Your task to perform on an android device: change text size in settings app Image 0: 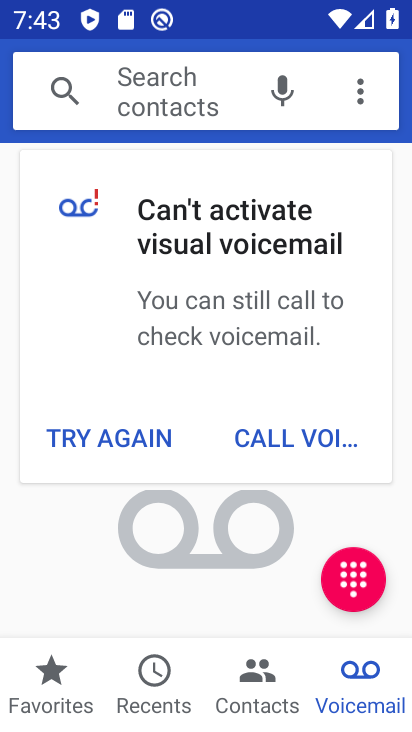
Step 0: press back button
Your task to perform on an android device: change text size in settings app Image 1: 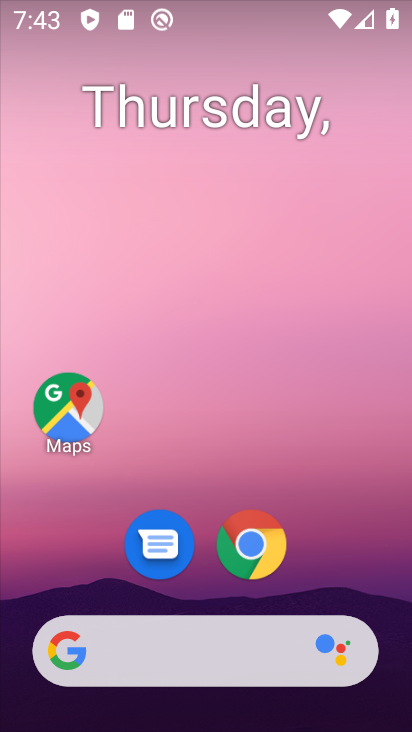
Step 1: drag from (350, 543) to (228, 139)
Your task to perform on an android device: change text size in settings app Image 2: 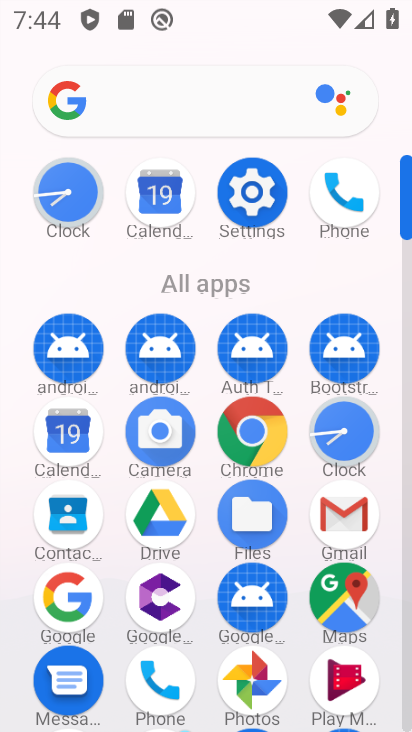
Step 2: click (253, 192)
Your task to perform on an android device: change text size in settings app Image 3: 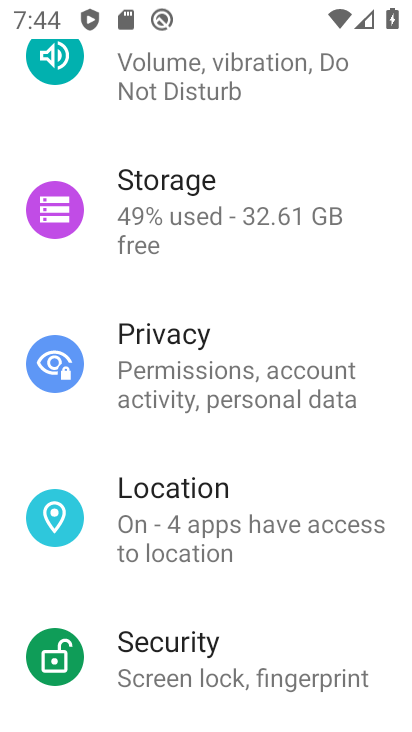
Step 3: drag from (254, 458) to (267, 358)
Your task to perform on an android device: change text size in settings app Image 4: 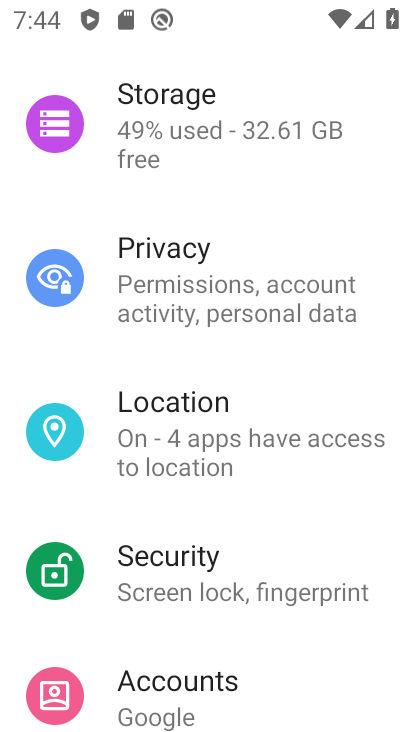
Step 4: drag from (249, 495) to (272, 426)
Your task to perform on an android device: change text size in settings app Image 5: 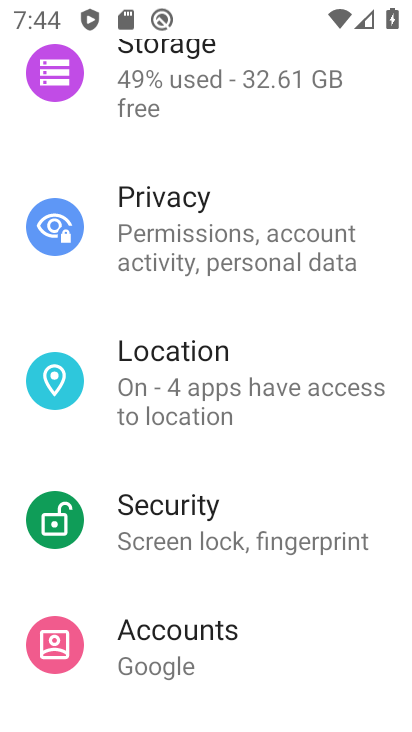
Step 5: drag from (230, 477) to (283, 378)
Your task to perform on an android device: change text size in settings app Image 6: 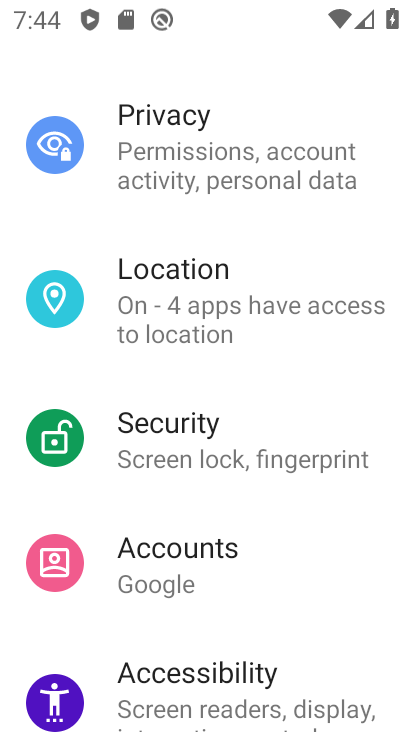
Step 6: drag from (214, 497) to (267, 398)
Your task to perform on an android device: change text size in settings app Image 7: 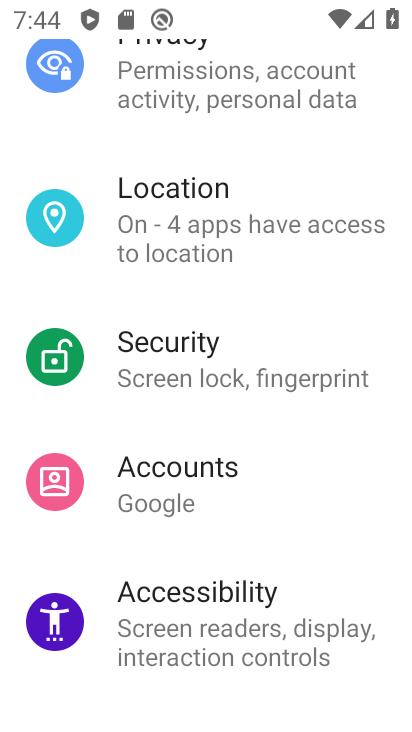
Step 7: drag from (234, 515) to (274, 433)
Your task to perform on an android device: change text size in settings app Image 8: 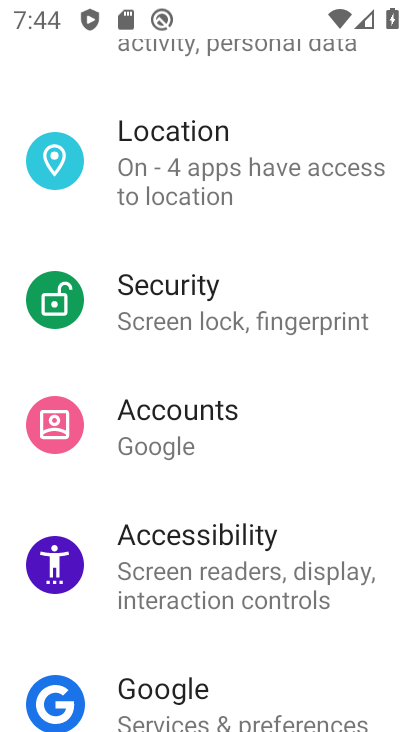
Step 8: drag from (220, 489) to (279, 407)
Your task to perform on an android device: change text size in settings app Image 9: 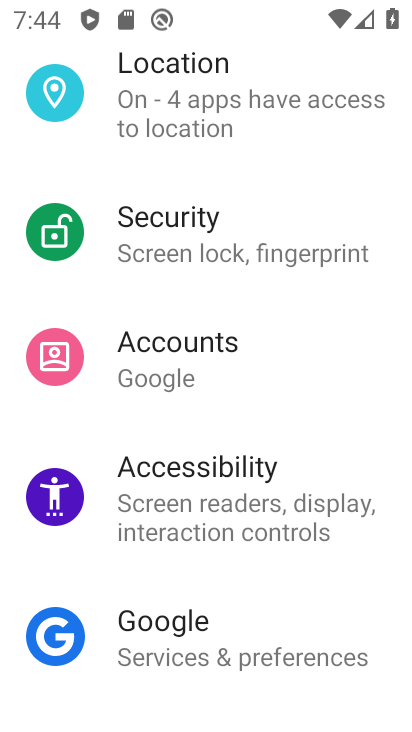
Step 9: click (253, 474)
Your task to perform on an android device: change text size in settings app Image 10: 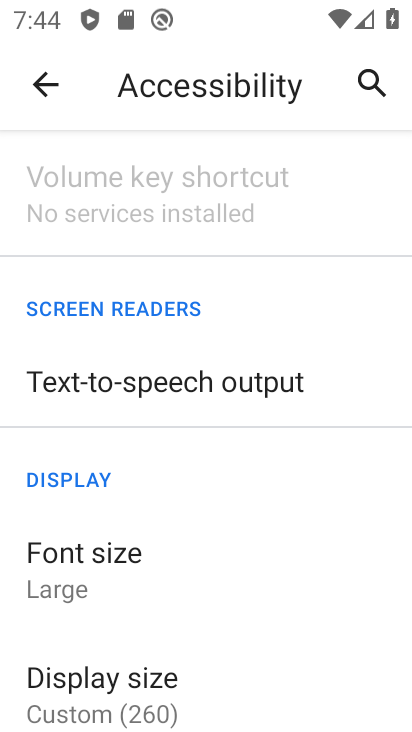
Step 10: click (111, 562)
Your task to perform on an android device: change text size in settings app Image 11: 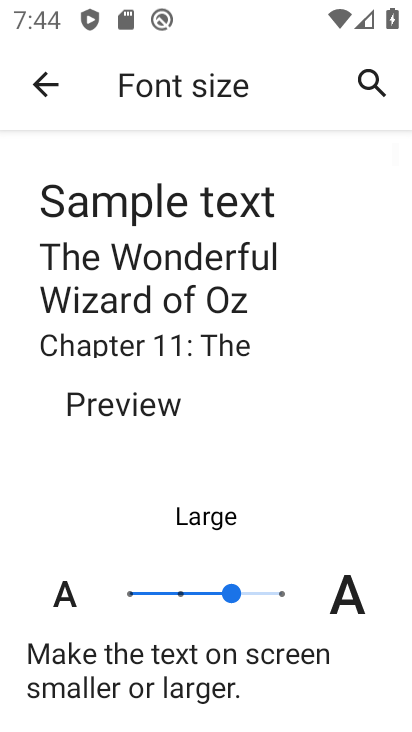
Step 11: click (183, 599)
Your task to perform on an android device: change text size in settings app Image 12: 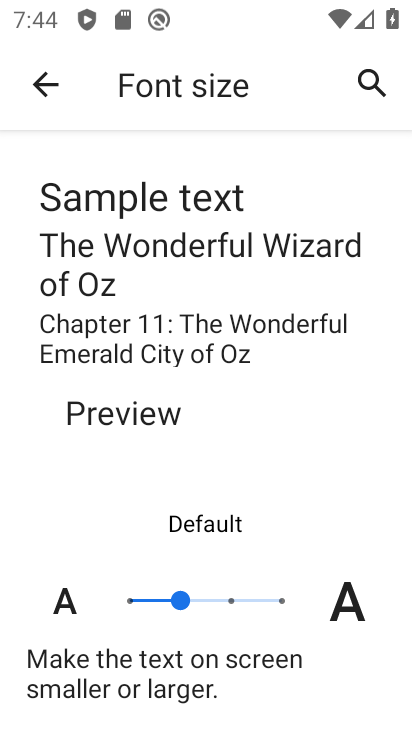
Step 12: task complete